Your task to perform on an android device: change the clock style Image 0: 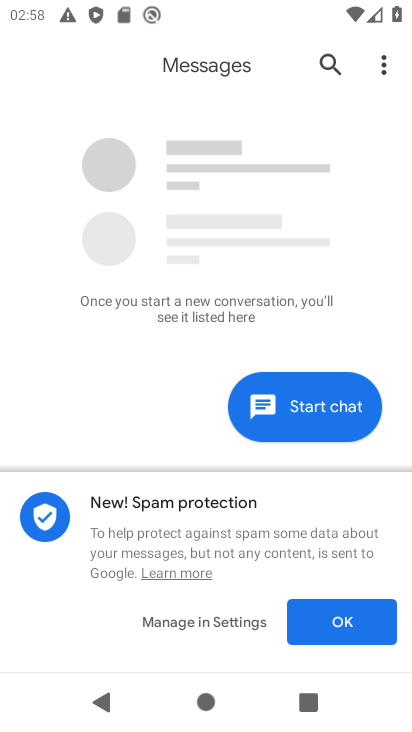
Step 0: press home button
Your task to perform on an android device: change the clock style Image 1: 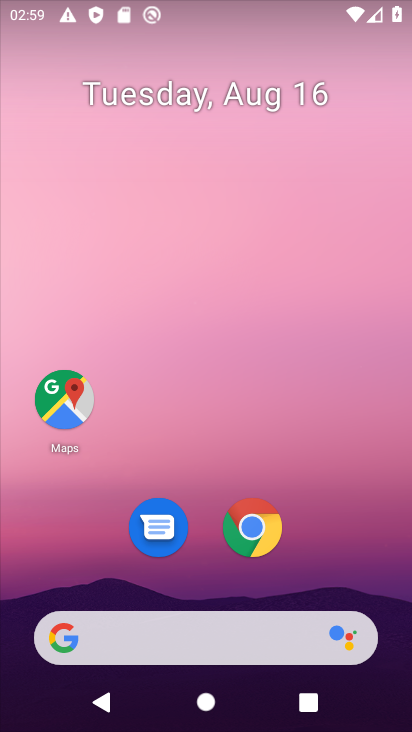
Step 1: drag from (203, 574) to (191, 0)
Your task to perform on an android device: change the clock style Image 2: 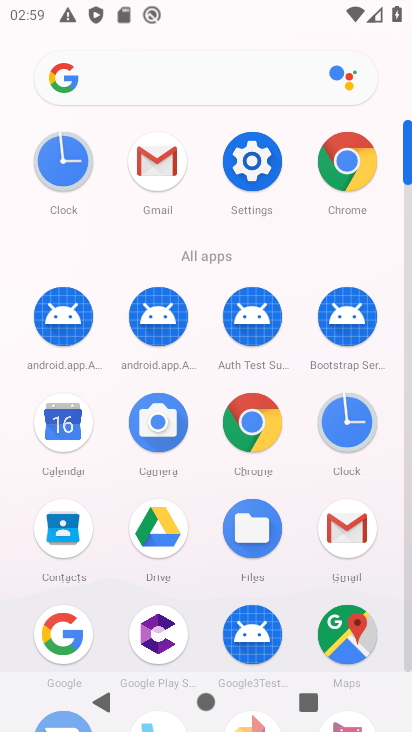
Step 2: click (59, 150)
Your task to perform on an android device: change the clock style Image 3: 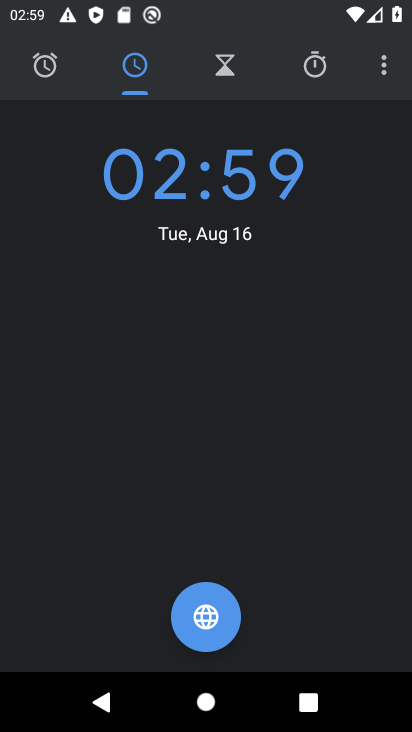
Step 3: click (380, 60)
Your task to perform on an android device: change the clock style Image 4: 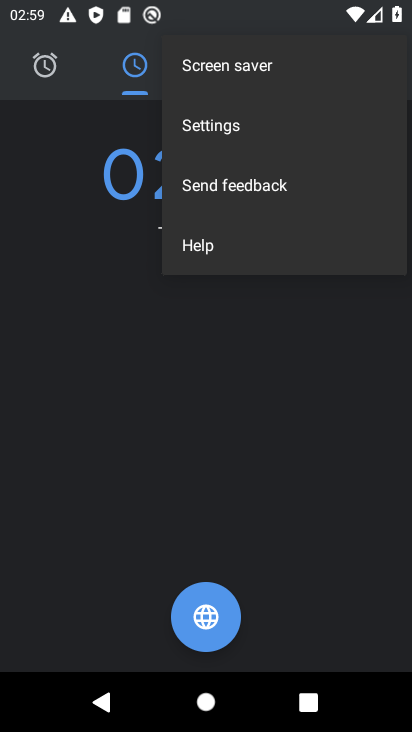
Step 4: click (246, 125)
Your task to perform on an android device: change the clock style Image 5: 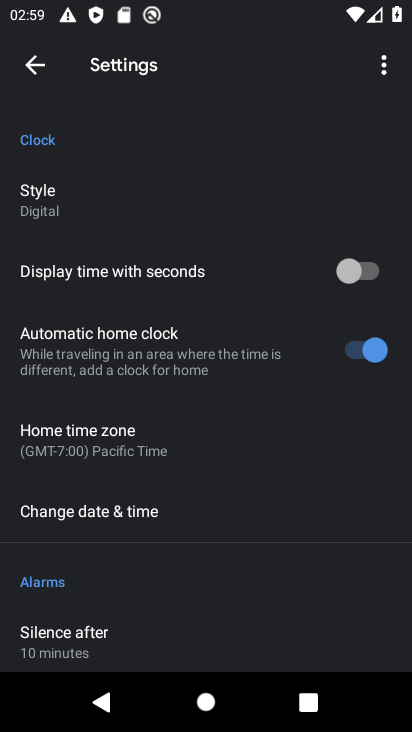
Step 5: click (98, 205)
Your task to perform on an android device: change the clock style Image 6: 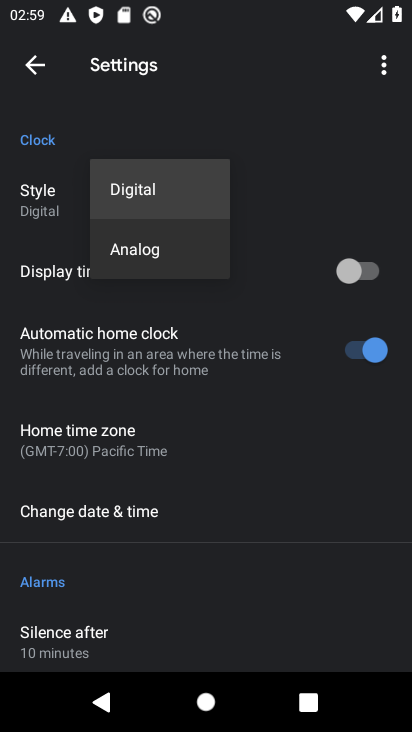
Step 6: click (152, 254)
Your task to perform on an android device: change the clock style Image 7: 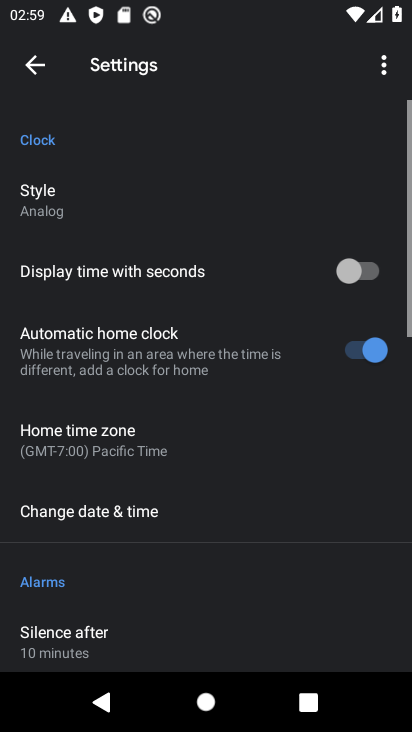
Step 7: task complete